Your task to perform on an android device: change notifications settings Image 0: 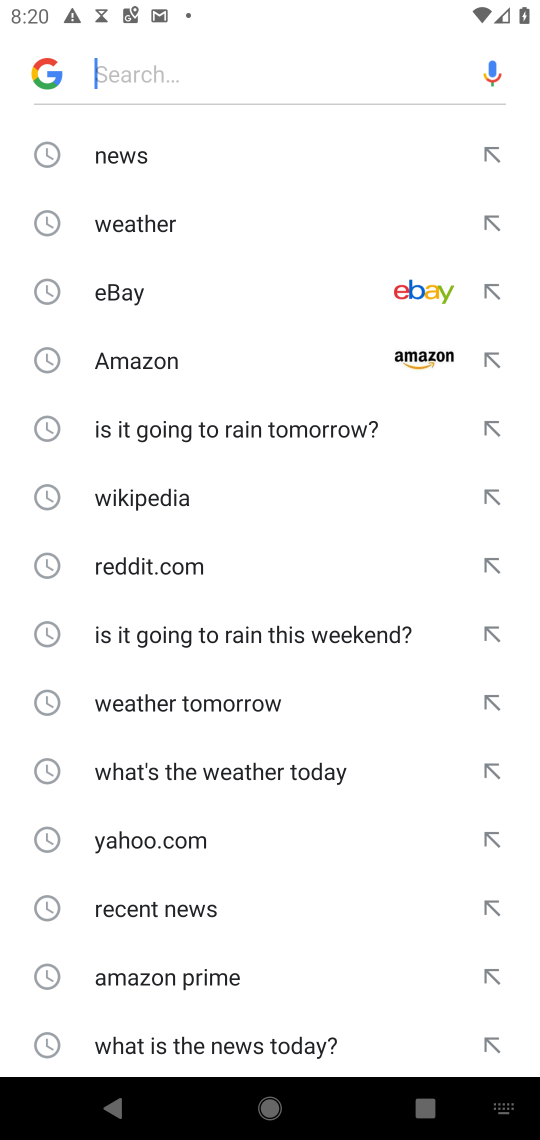
Step 0: press home button
Your task to perform on an android device: change notifications settings Image 1: 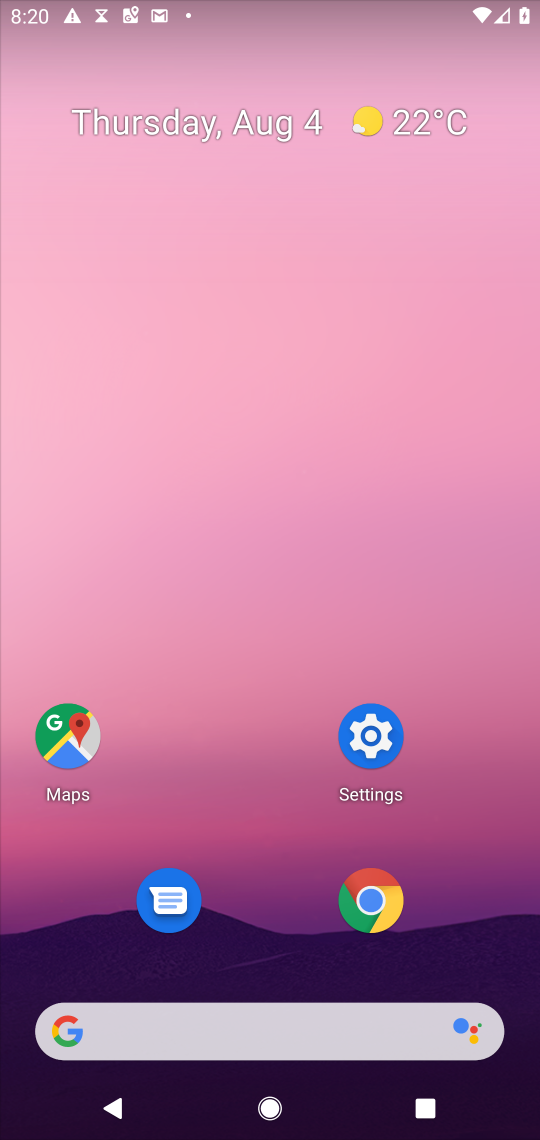
Step 1: click (366, 723)
Your task to perform on an android device: change notifications settings Image 2: 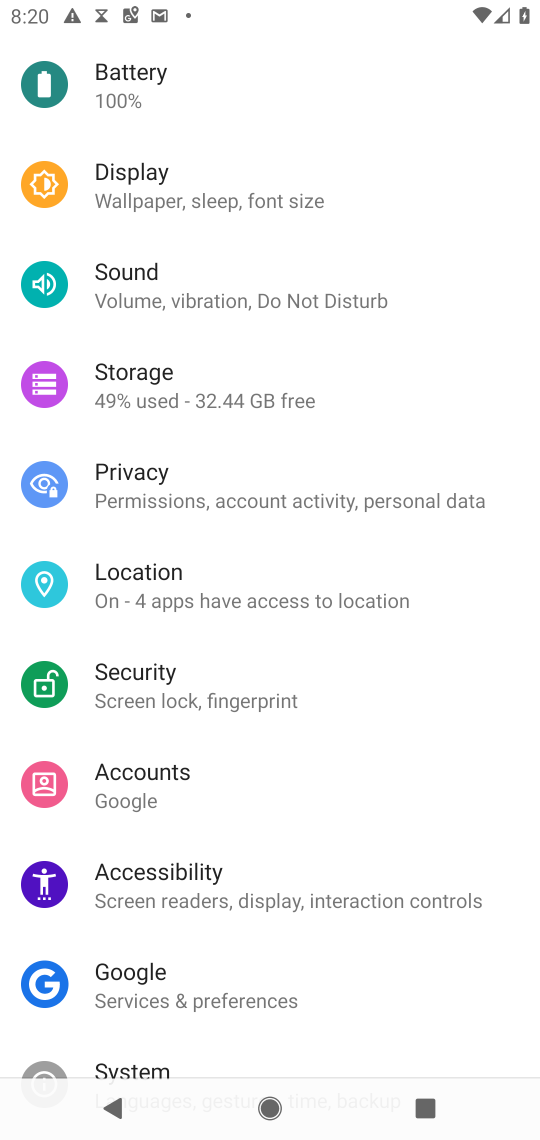
Step 2: drag from (334, 162) to (343, 928)
Your task to perform on an android device: change notifications settings Image 3: 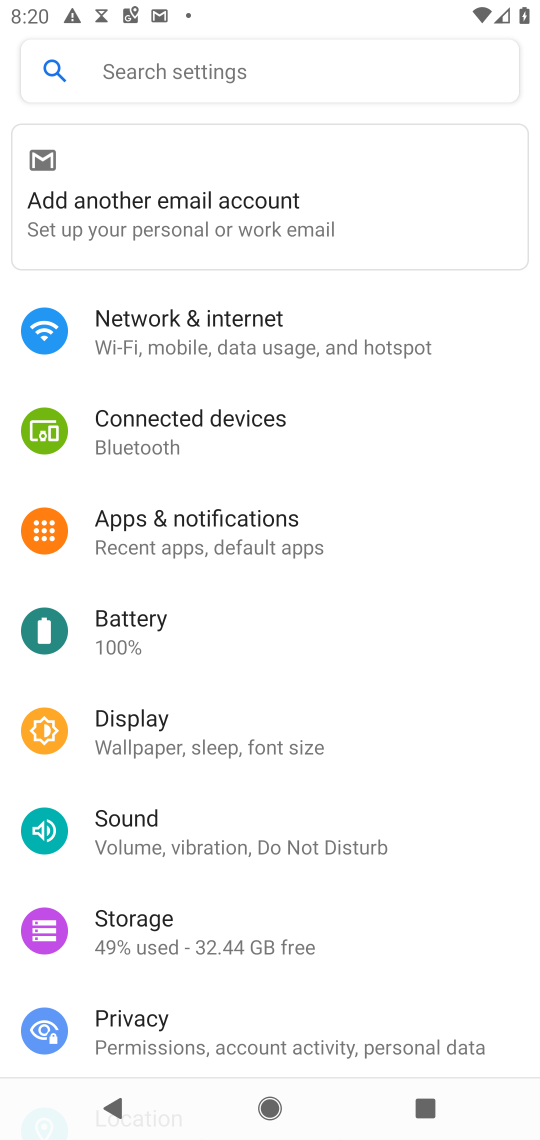
Step 3: click (240, 524)
Your task to perform on an android device: change notifications settings Image 4: 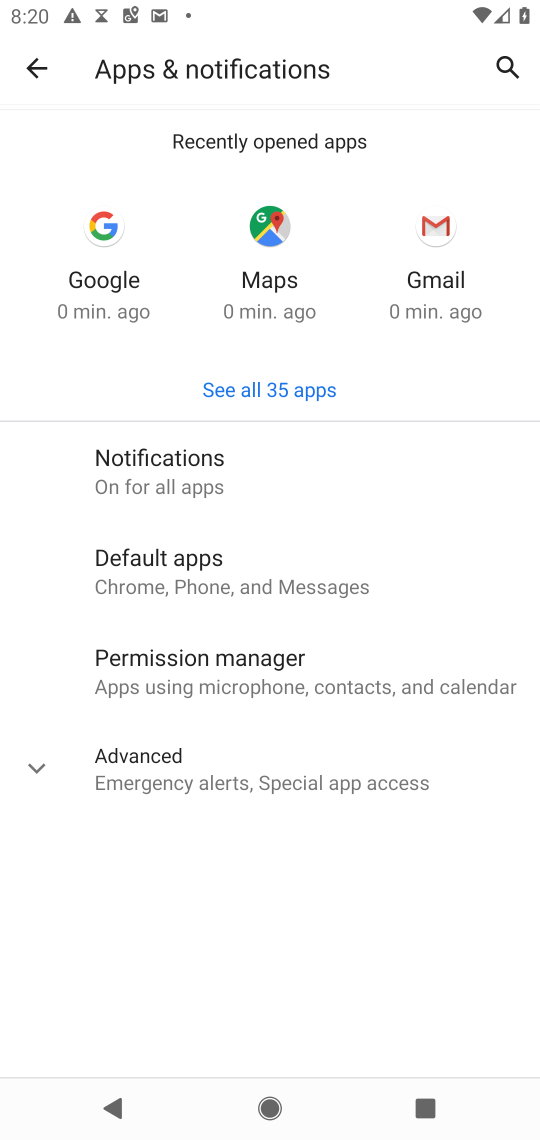
Step 4: click (180, 455)
Your task to perform on an android device: change notifications settings Image 5: 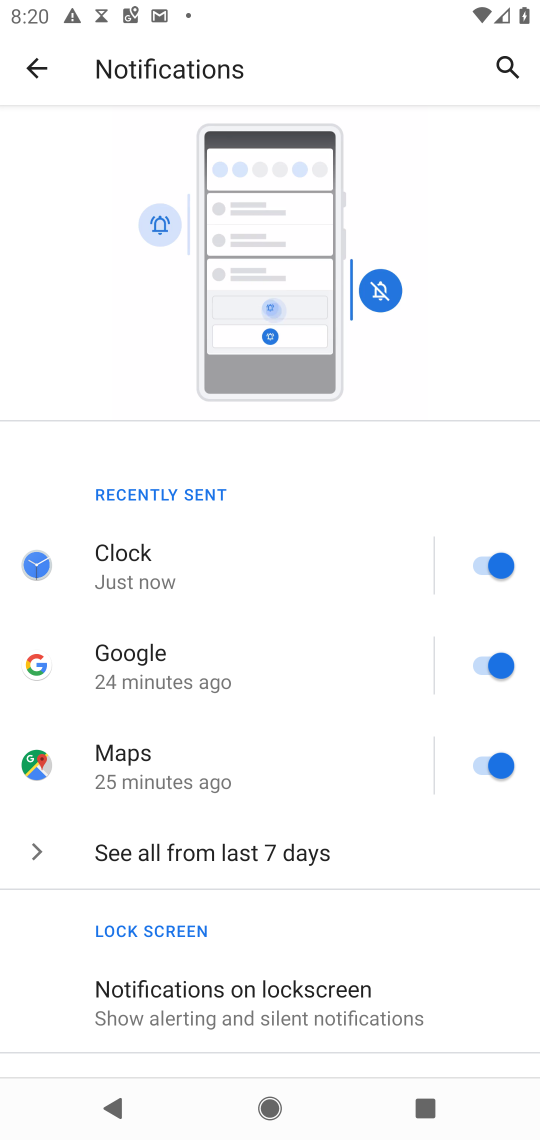
Step 5: drag from (281, 932) to (304, 308)
Your task to perform on an android device: change notifications settings Image 6: 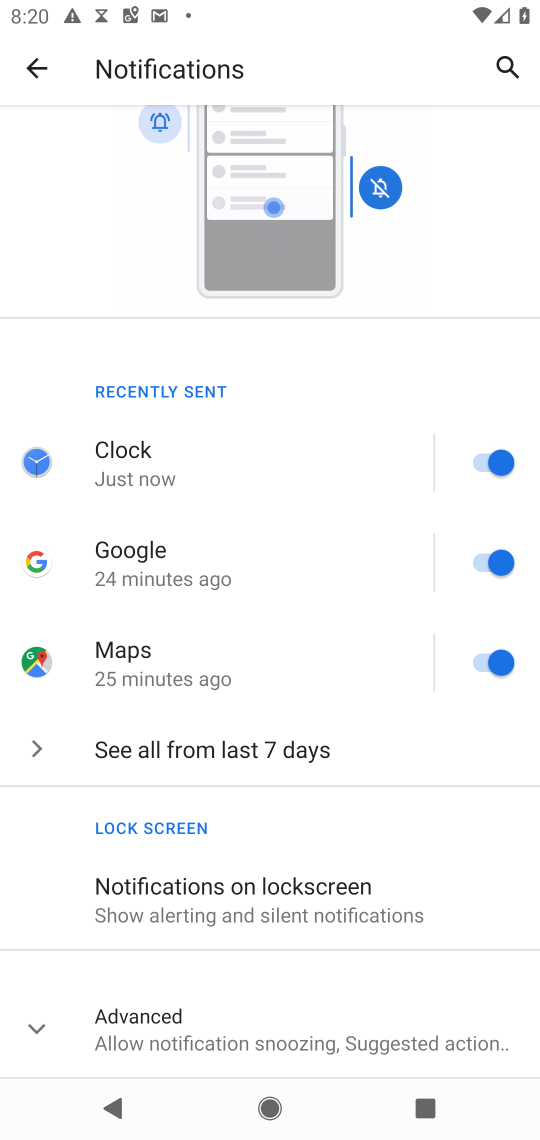
Step 6: click (477, 460)
Your task to perform on an android device: change notifications settings Image 7: 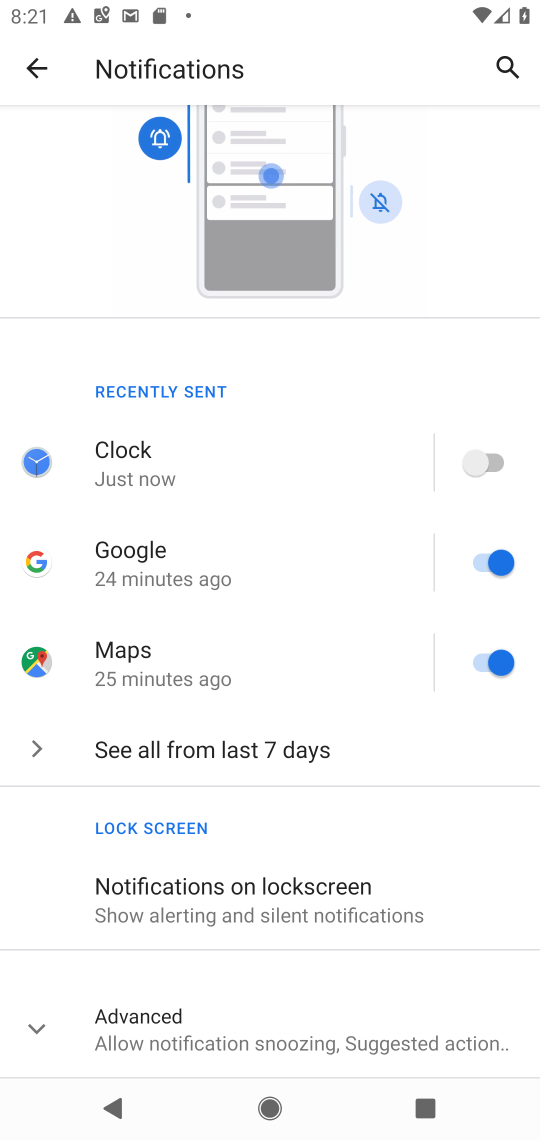
Step 7: task complete